Your task to perform on an android device: add a contact Image 0: 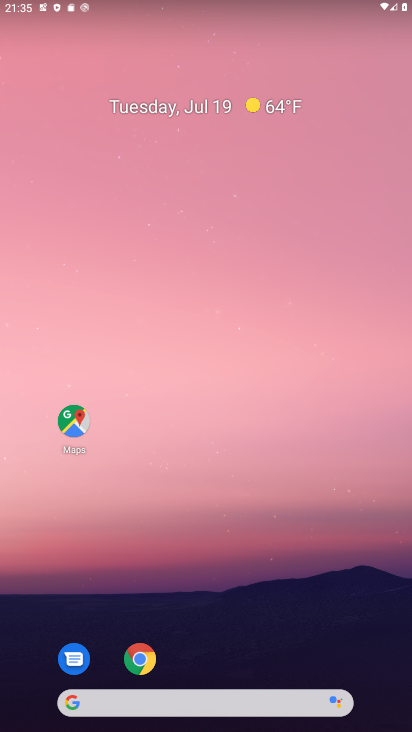
Step 0: drag from (214, 647) to (268, 116)
Your task to perform on an android device: add a contact Image 1: 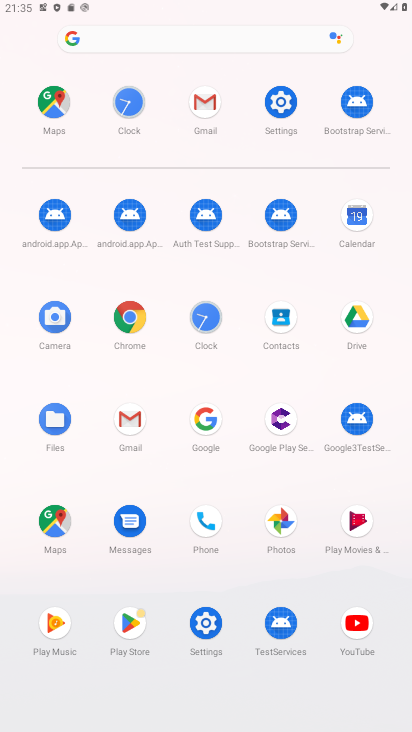
Step 1: click (292, 320)
Your task to perform on an android device: add a contact Image 2: 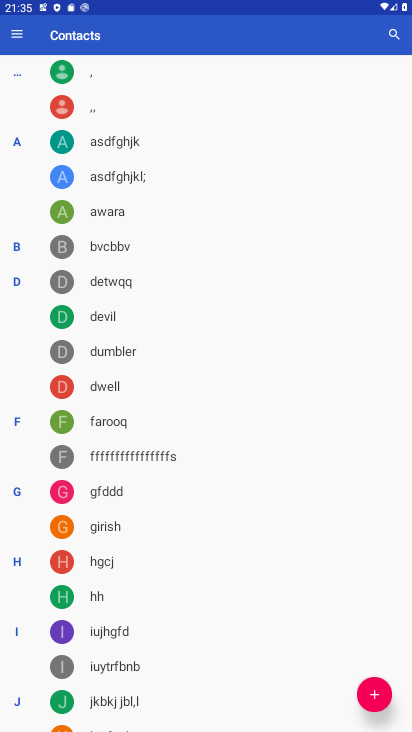
Step 2: click (386, 701)
Your task to perform on an android device: add a contact Image 3: 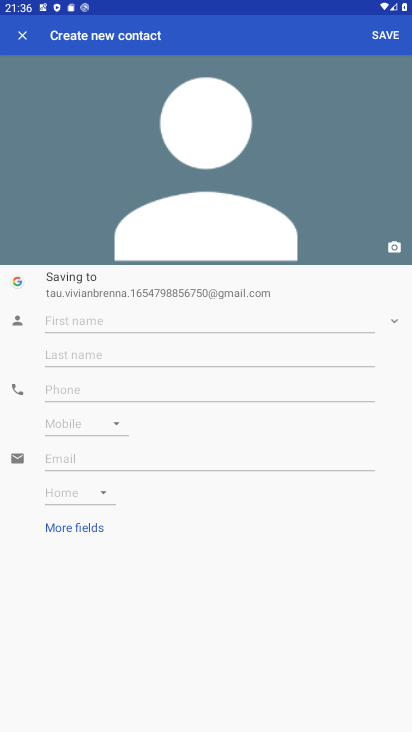
Step 3: type ",,,"
Your task to perform on an android device: add a contact Image 4: 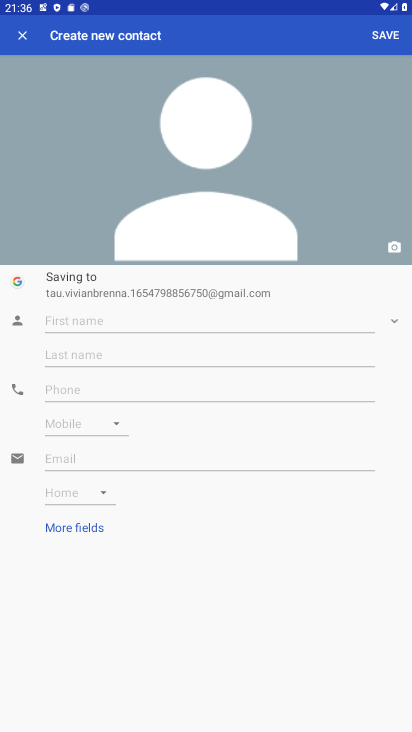
Step 4: click (149, 384)
Your task to perform on an android device: add a contact Image 5: 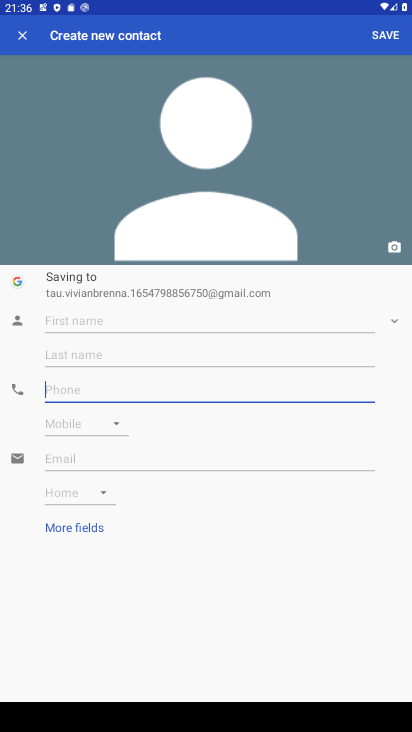
Step 5: type "876543456789"
Your task to perform on an android device: add a contact Image 6: 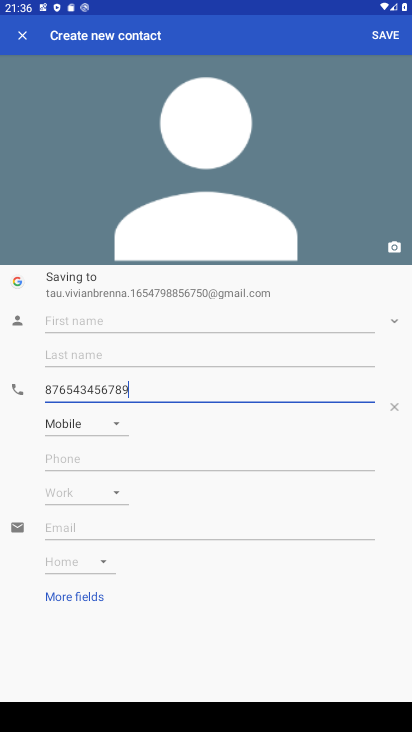
Step 6: click (384, 27)
Your task to perform on an android device: add a contact Image 7: 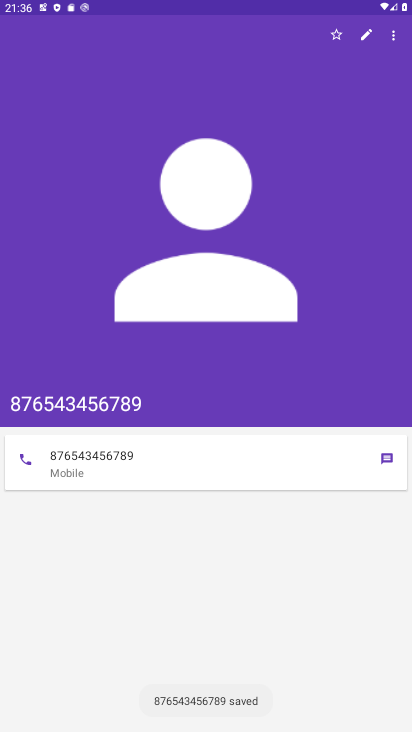
Step 7: task complete